Your task to perform on an android device: Open Yahoo.com Image 0: 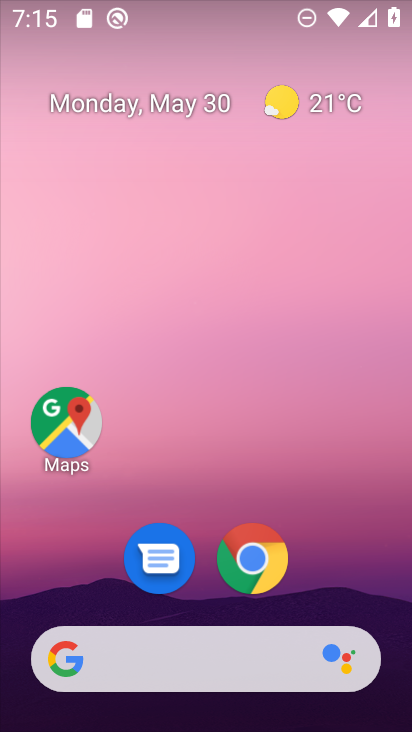
Step 0: click (255, 552)
Your task to perform on an android device: Open Yahoo.com Image 1: 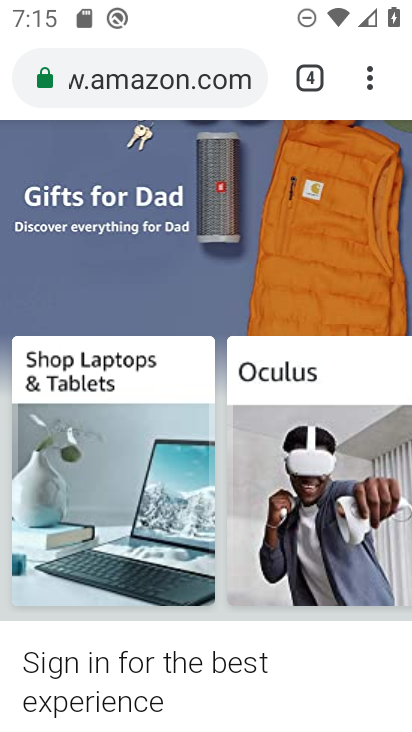
Step 1: click (371, 84)
Your task to perform on an android device: Open Yahoo.com Image 2: 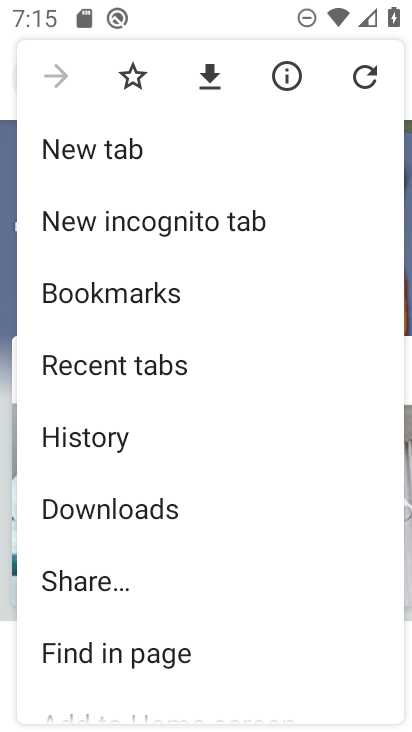
Step 2: click (102, 149)
Your task to perform on an android device: Open Yahoo.com Image 3: 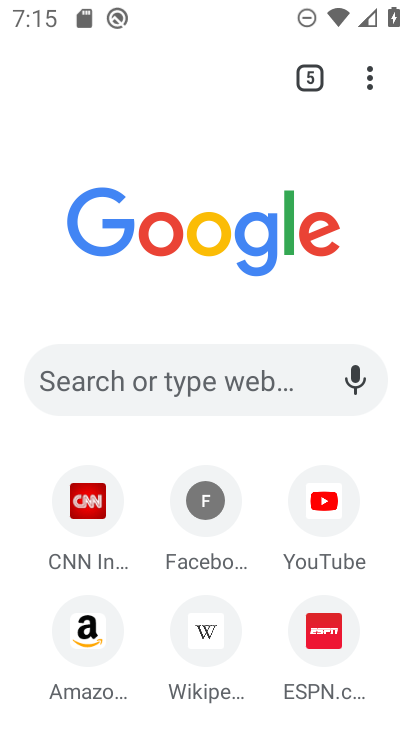
Step 3: drag from (143, 605) to (128, 374)
Your task to perform on an android device: Open Yahoo.com Image 4: 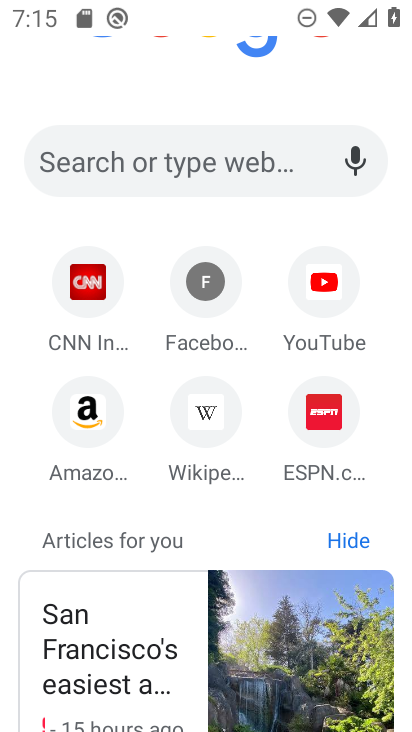
Step 4: click (163, 166)
Your task to perform on an android device: Open Yahoo.com Image 5: 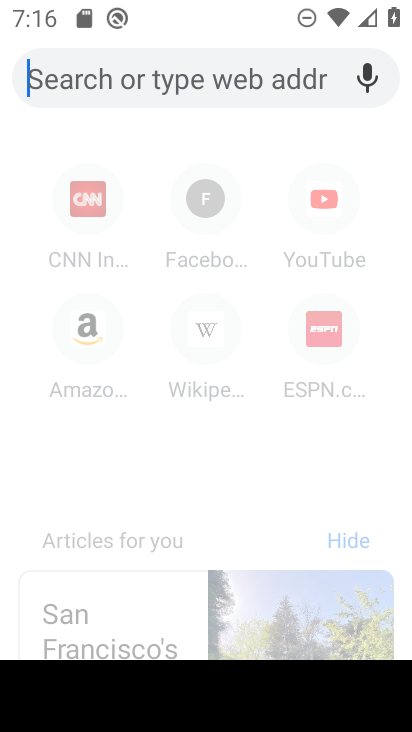
Step 5: type "yahoo.com"
Your task to perform on an android device: Open Yahoo.com Image 6: 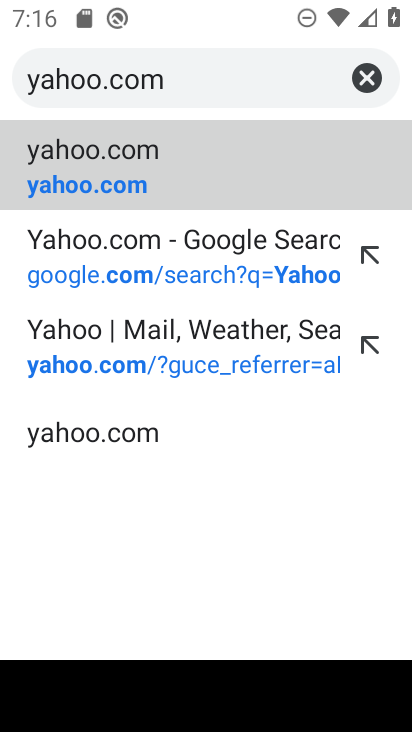
Step 6: click (75, 152)
Your task to perform on an android device: Open Yahoo.com Image 7: 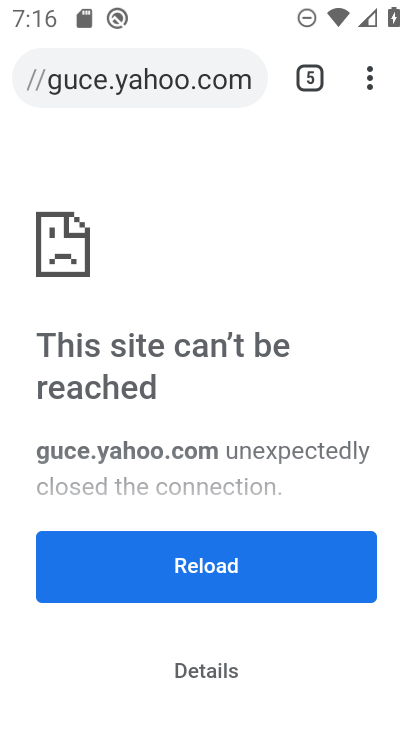
Step 7: task complete